Your task to perform on an android device: Empty the shopping cart on amazon.com. Add logitech g502 to the cart on amazon.com, then select checkout. Image 0: 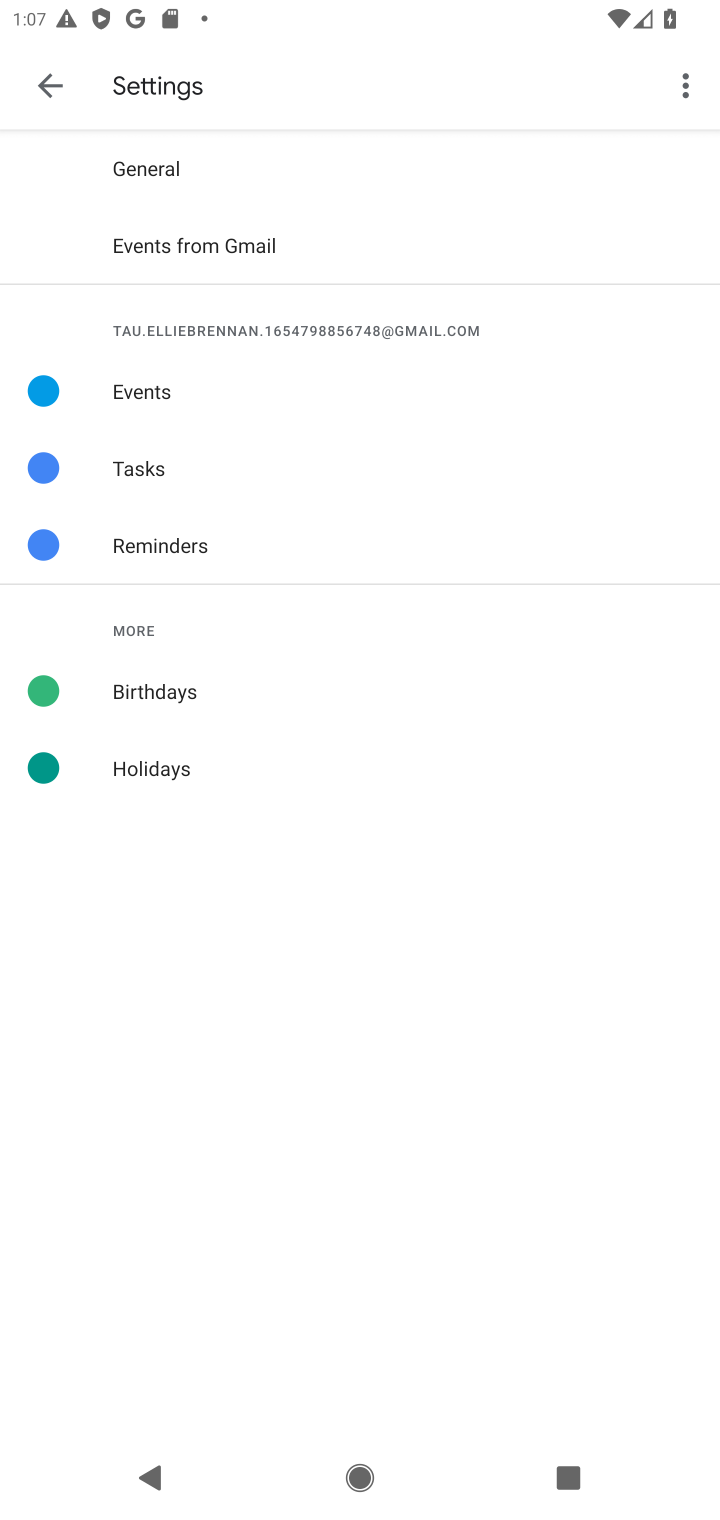
Step 0: task complete